Your task to perform on an android device: change alarm snooze length Image 0: 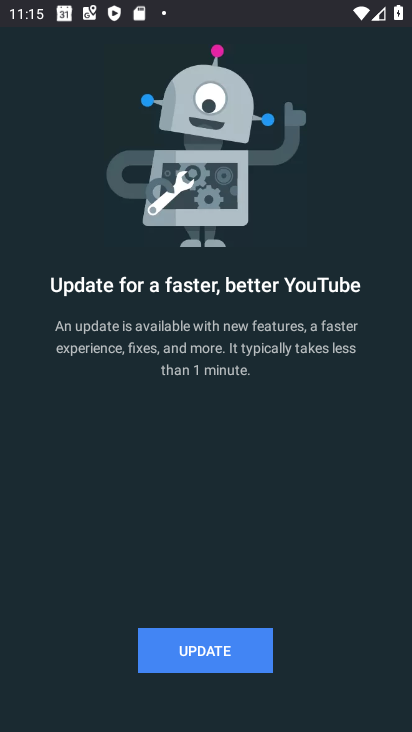
Step 0: press home button
Your task to perform on an android device: change alarm snooze length Image 1: 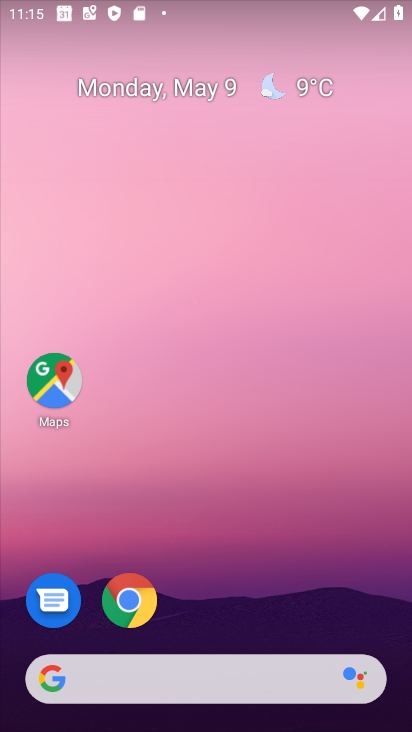
Step 1: drag from (333, 596) to (342, 197)
Your task to perform on an android device: change alarm snooze length Image 2: 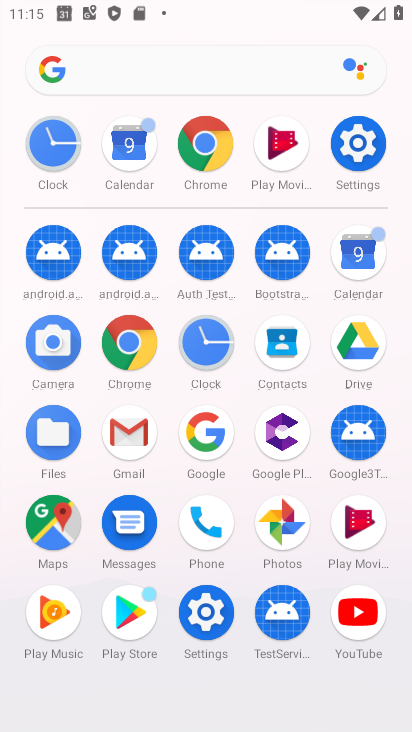
Step 2: click (216, 347)
Your task to perform on an android device: change alarm snooze length Image 3: 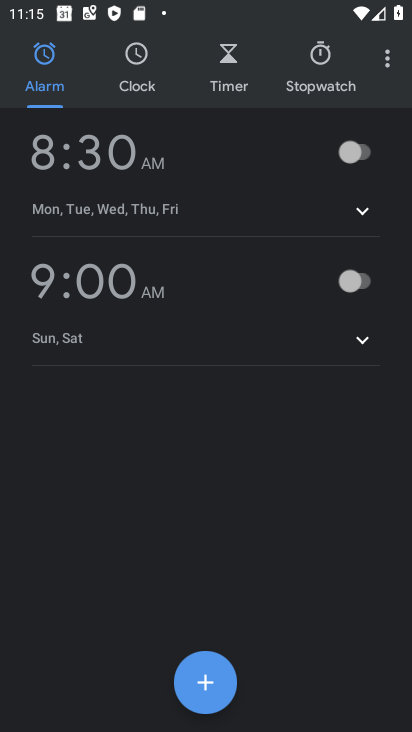
Step 3: click (370, 77)
Your task to perform on an android device: change alarm snooze length Image 4: 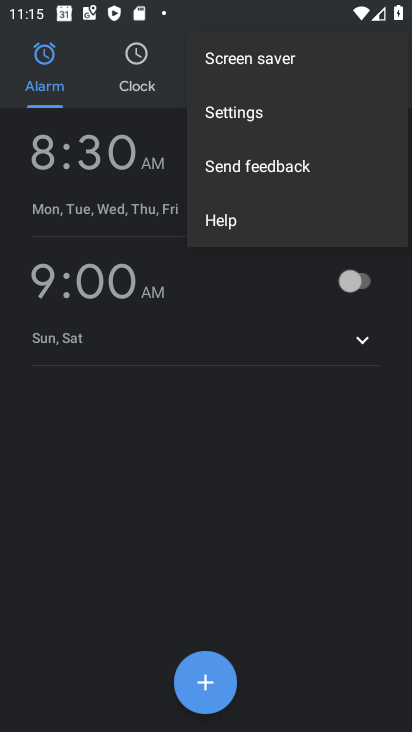
Step 4: click (246, 115)
Your task to perform on an android device: change alarm snooze length Image 5: 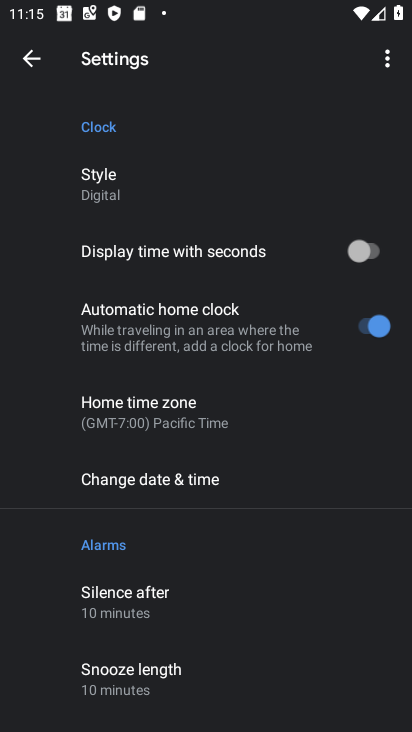
Step 5: click (195, 674)
Your task to perform on an android device: change alarm snooze length Image 6: 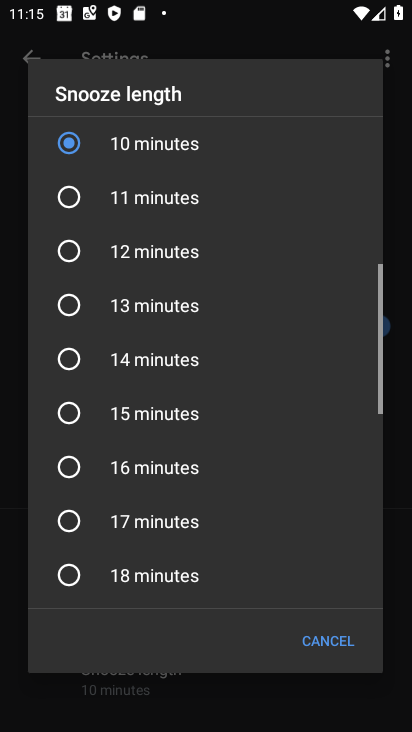
Step 6: click (137, 304)
Your task to perform on an android device: change alarm snooze length Image 7: 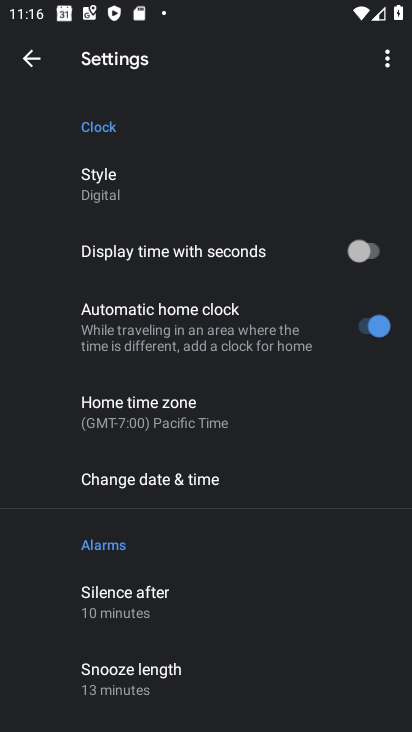
Step 7: task complete